Your task to perform on an android device: Open the clock Image 0: 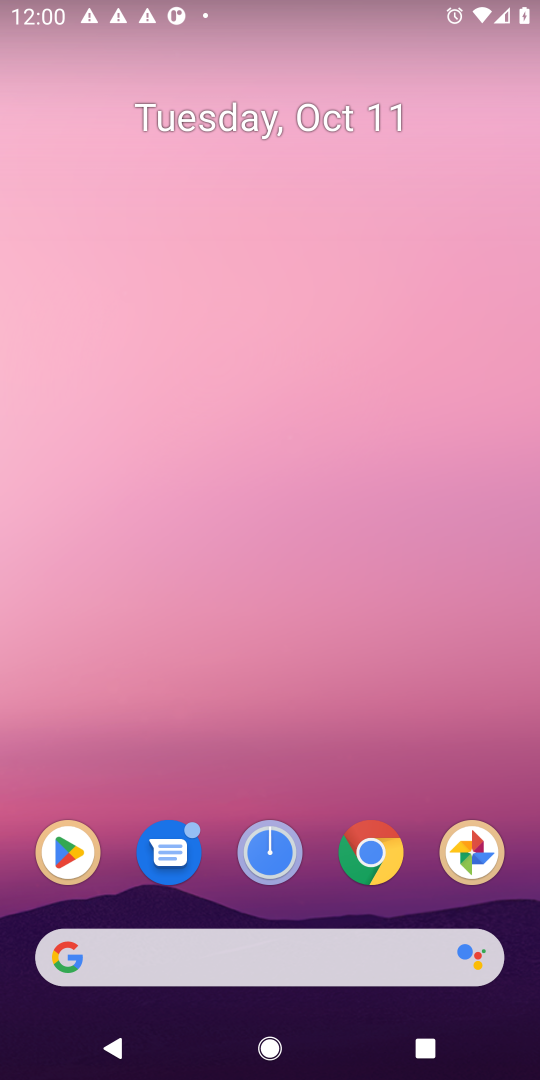
Step 0: click (249, 837)
Your task to perform on an android device: Open the clock Image 1: 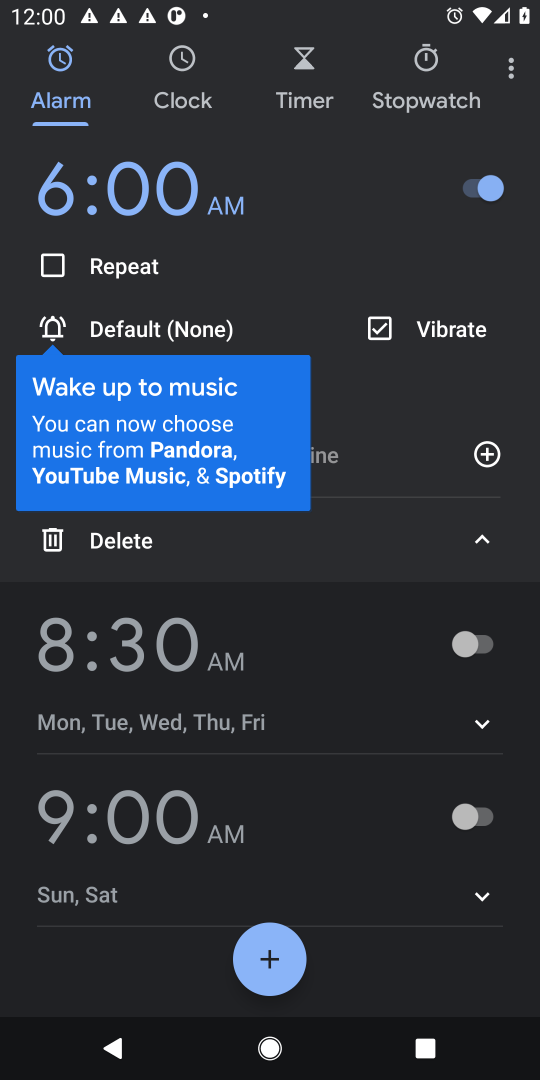
Step 1: click (191, 66)
Your task to perform on an android device: Open the clock Image 2: 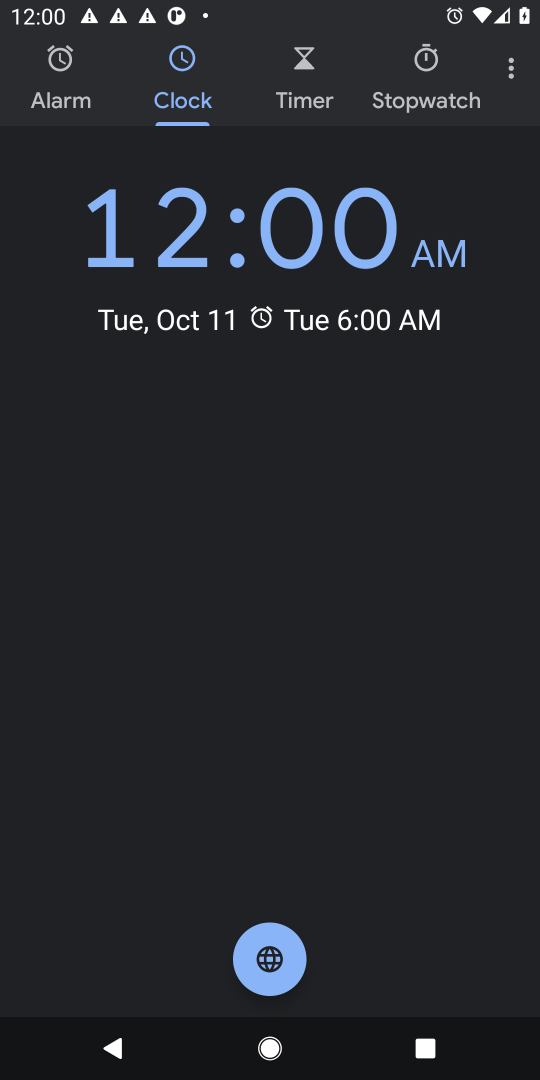
Step 2: task complete